Your task to perform on an android device: Go to Google Image 0: 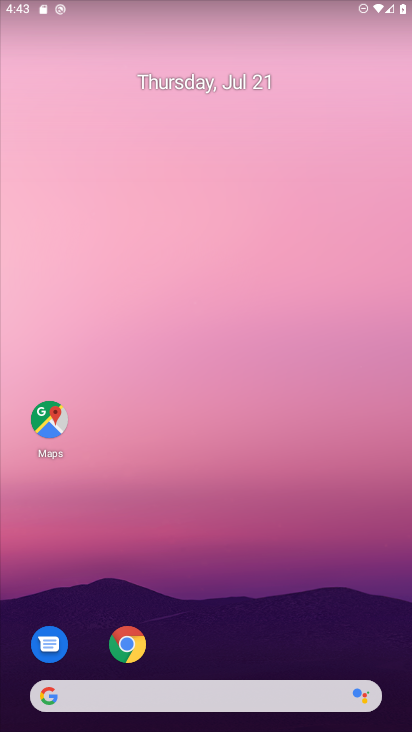
Step 0: click (146, 701)
Your task to perform on an android device: Go to Google Image 1: 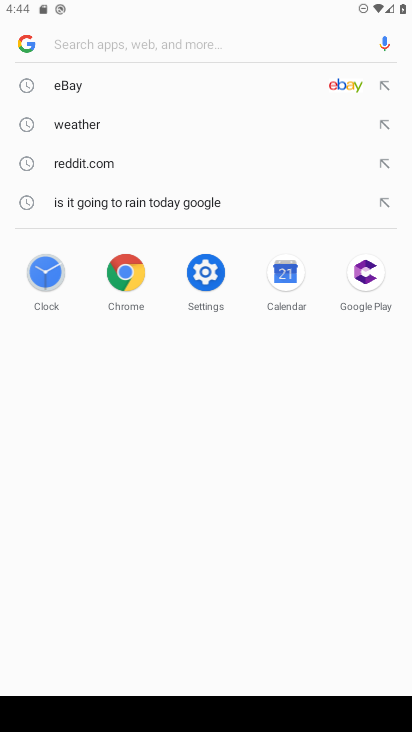
Step 1: task complete